Your task to perform on an android device: What is the news today? Image 0: 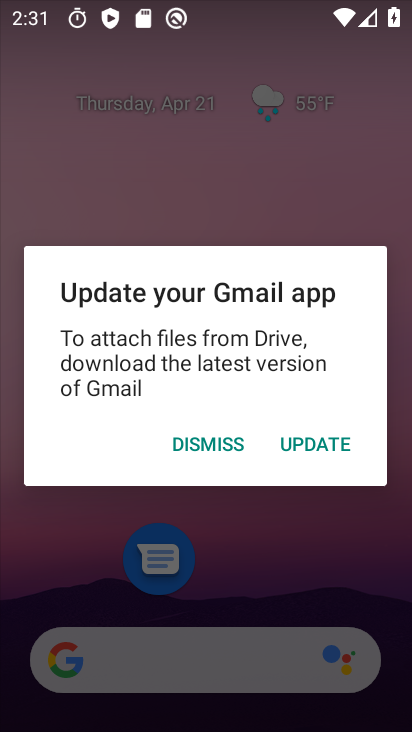
Step 0: press home button
Your task to perform on an android device: What is the news today? Image 1: 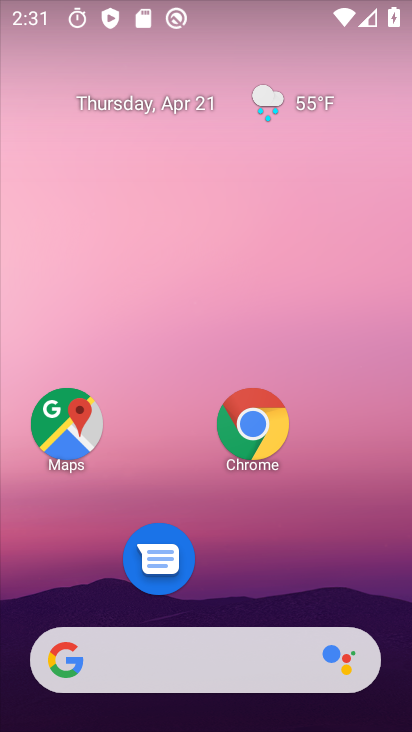
Step 1: drag from (259, 529) to (180, 89)
Your task to perform on an android device: What is the news today? Image 2: 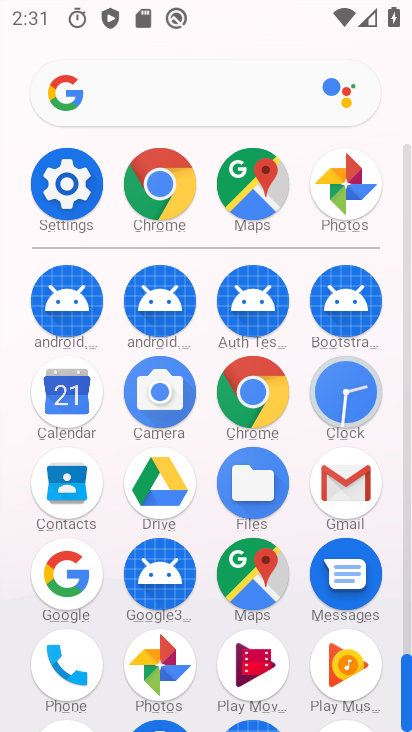
Step 2: click (65, 579)
Your task to perform on an android device: What is the news today? Image 3: 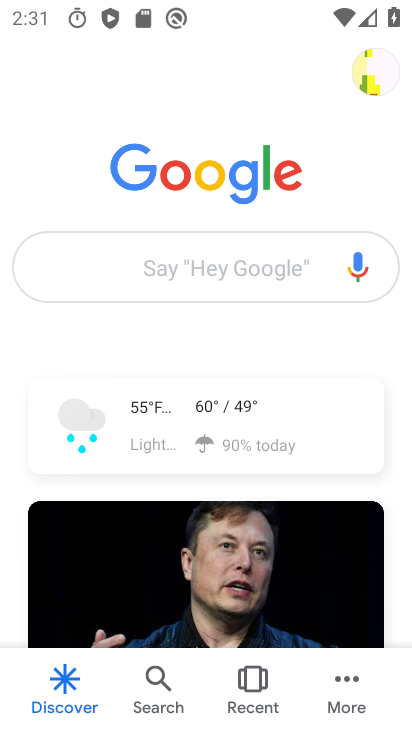
Step 3: click (172, 254)
Your task to perform on an android device: What is the news today? Image 4: 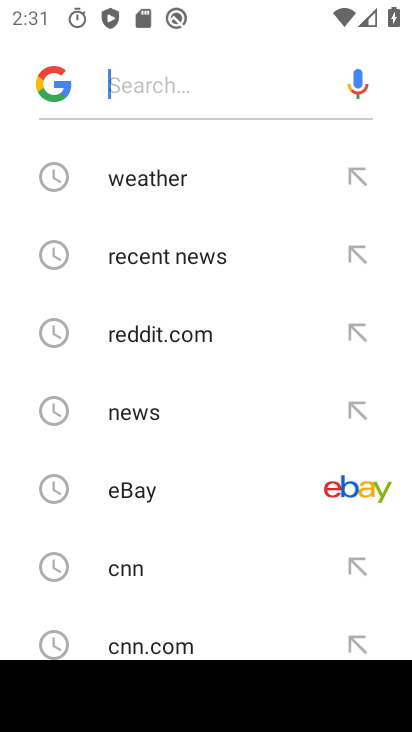
Step 4: click (167, 416)
Your task to perform on an android device: What is the news today? Image 5: 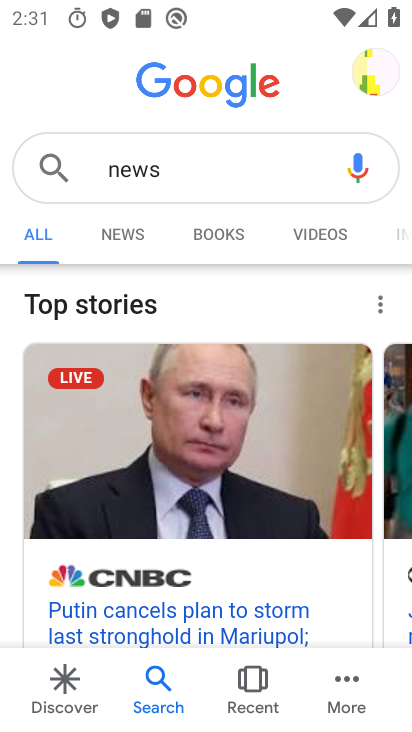
Step 5: task complete